Your task to perform on an android device: Open Google Image 0: 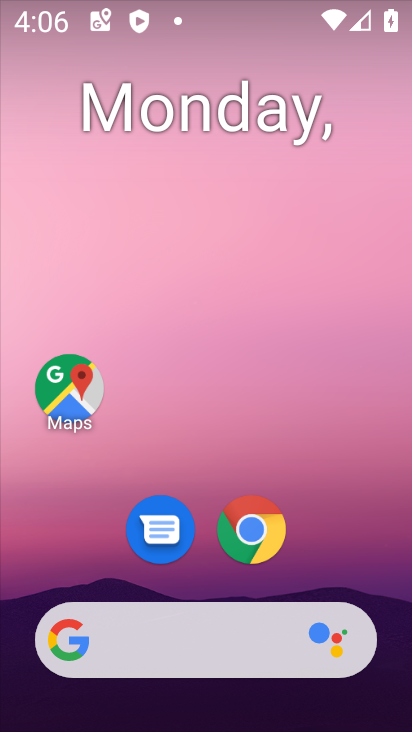
Step 0: drag from (218, 725) to (204, 234)
Your task to perform on an android device: Open Google Image 1: 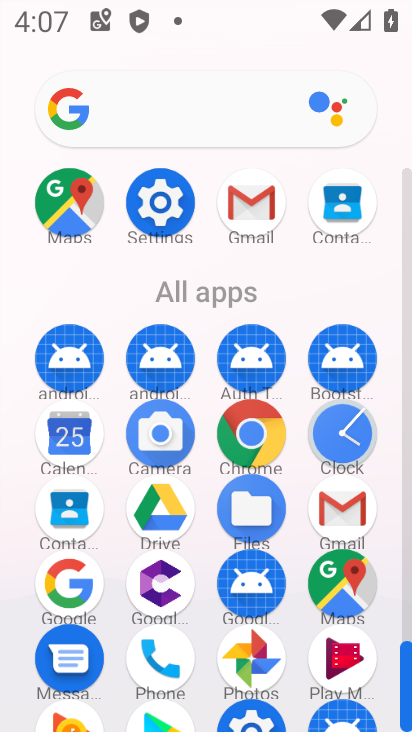
Step 1: drag from (191, 678) to (180, 451)
Your task to perform on an android device: Open Google Image 2: 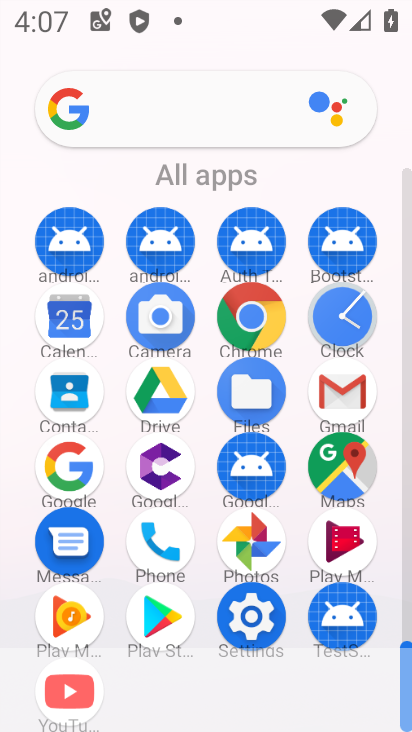
Step 2: click (53, 471)
Your task to perform on an android device: Open Google Image 3: 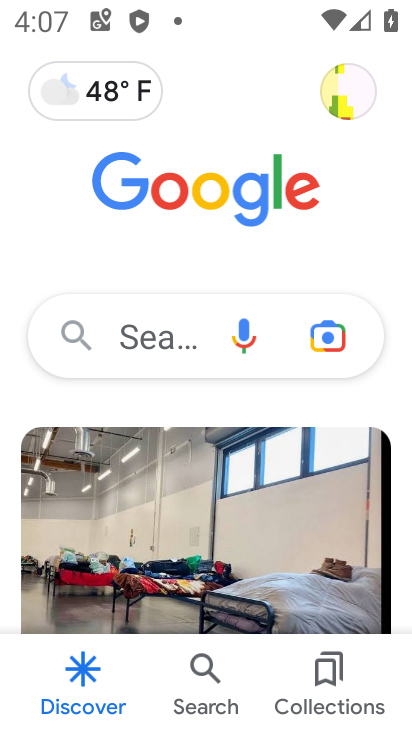
Step 3: task complete